Your task to perform on an android device: Go to Google maps Image 0: 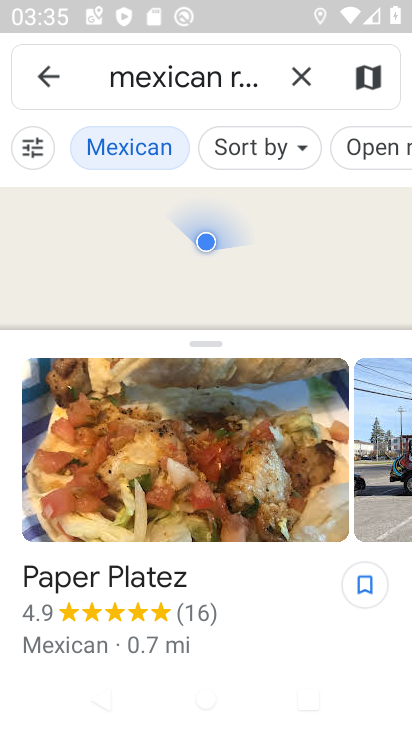
Step 0: click (58, 78)
Your task to perform on an android device: Go to Google maps Image 1: 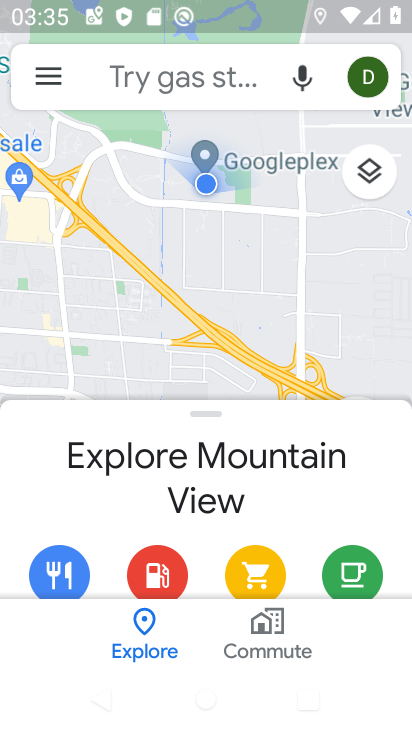
Step 1: task complete